Your task to perform on an android device: toggle notification dots Image 0: 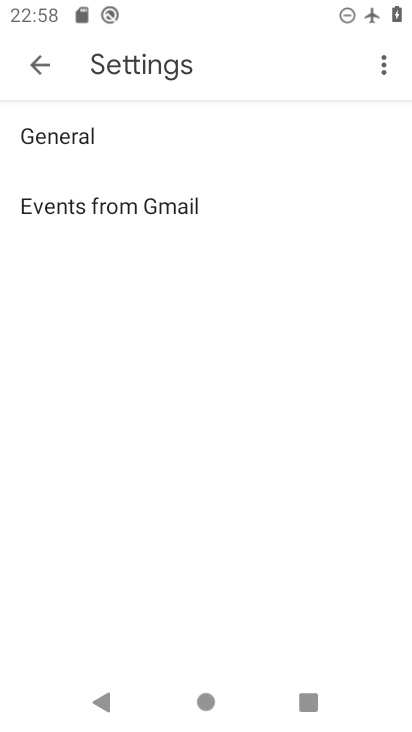
Step 0: press home button
Your task to perform on an android device: toggle notification dots Image 1: 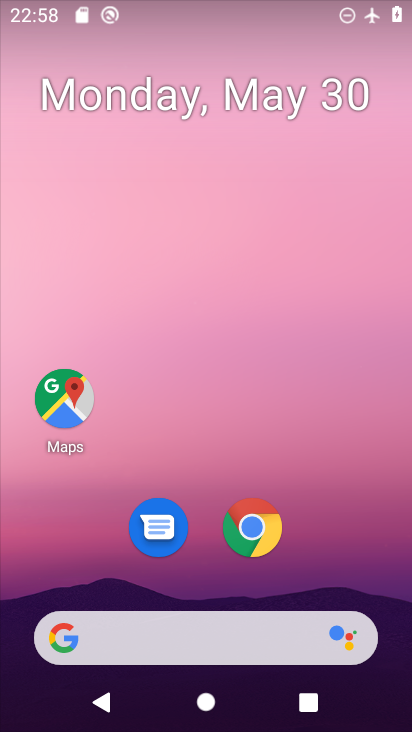
Step 1: drag from (292, 571) to (281, 274)
Your task to perform on an android device: toggle notification dots Image 2: 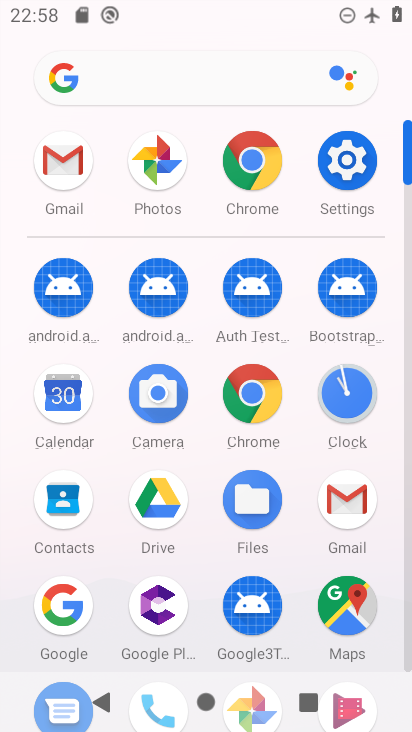
Step 2: click (334, 155)
Your task to perform on an android device: toggle notification dots Image 3: 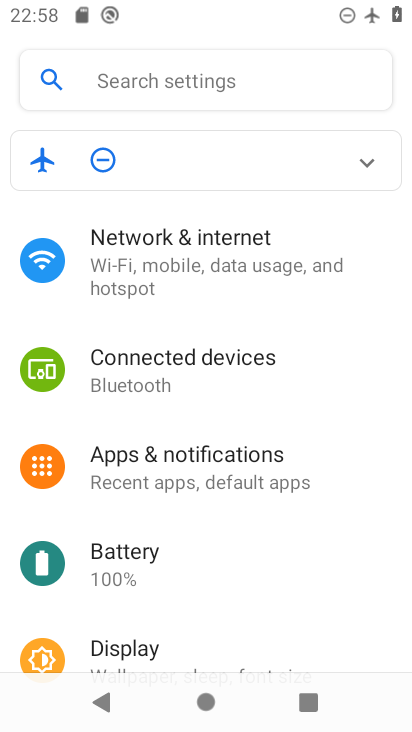
Step 3: click (180, 79)
Your task to perform on an android device: toggle notification dots Image 4: 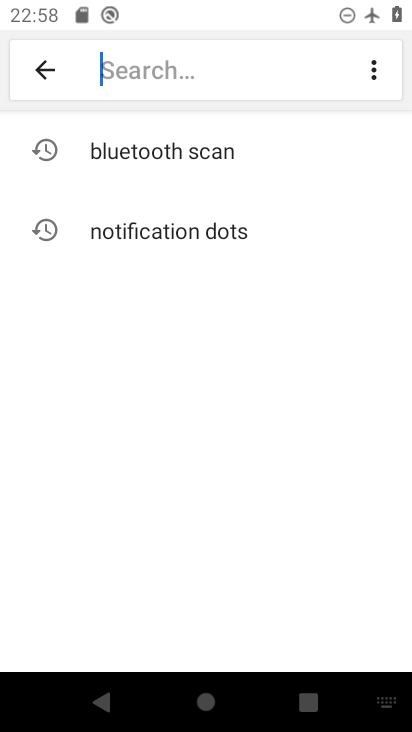
Step 4: click (190, 241)
Your task to perform on an android device: toggle notification dots Image 5: 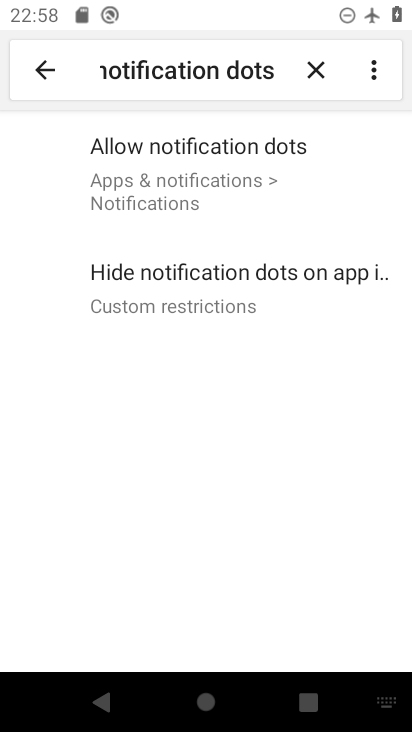
Step 5: click (285, 157)
Your task to perform on an android device: toggle notification dots Image 6: 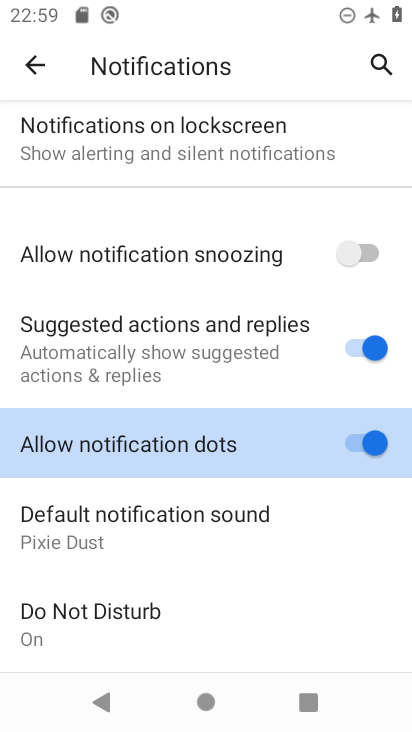
Step 6: click (359, 435)
Your task to perform on an android device: toggle notification dots Image 7: 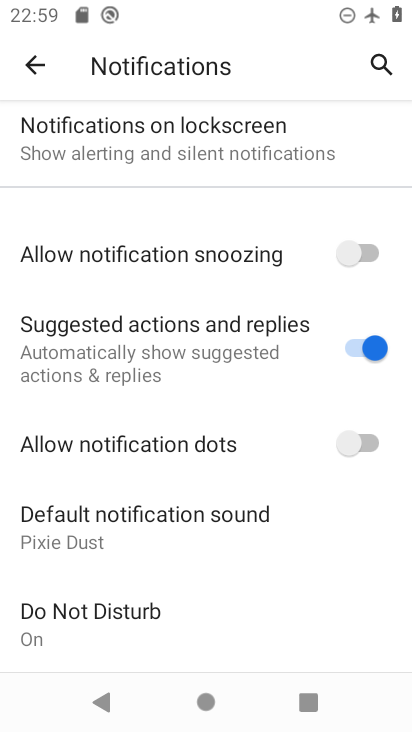
Step 7: task complete